Your task to perform on an android device: Set the phone to "Do not disturb". Image 0: 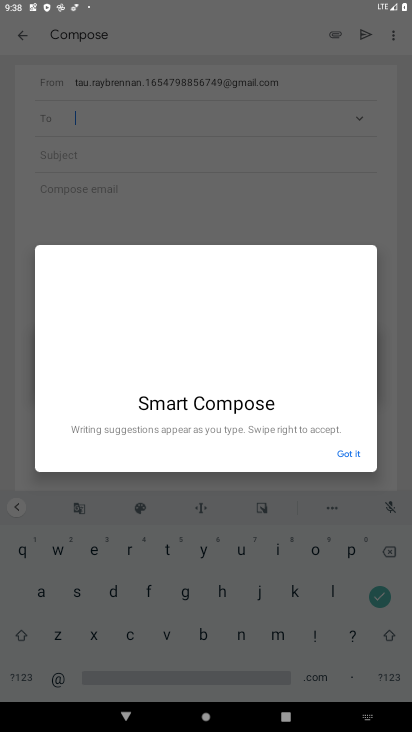
Step 0: press home button
Your task to perform on an android device: Set the phone to "Do not disturb". Image 1: 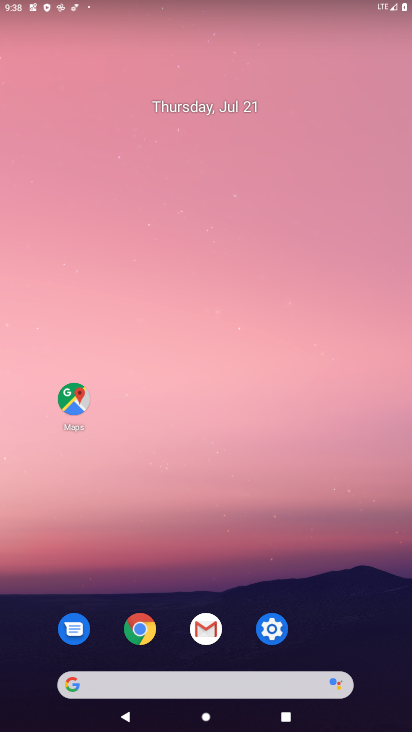
Step 1: click (280, 636)
Your task to perform on an android device: Set the phone to "Do not disturb". Image 2: 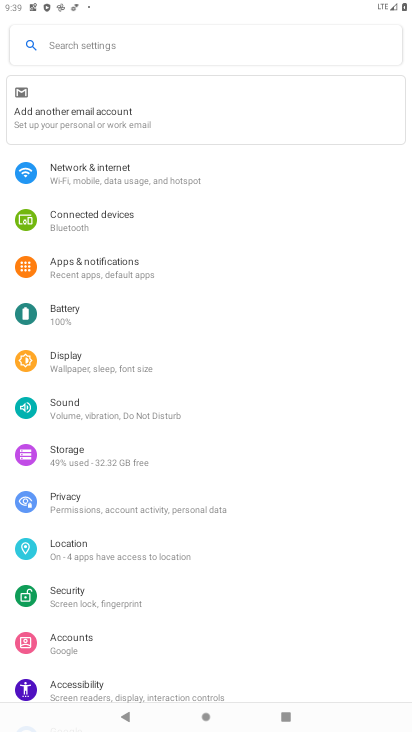
Step 2: click (101, 44)
Your task to perform on an android device: Set the phone to "Do not disturb". Image 3: 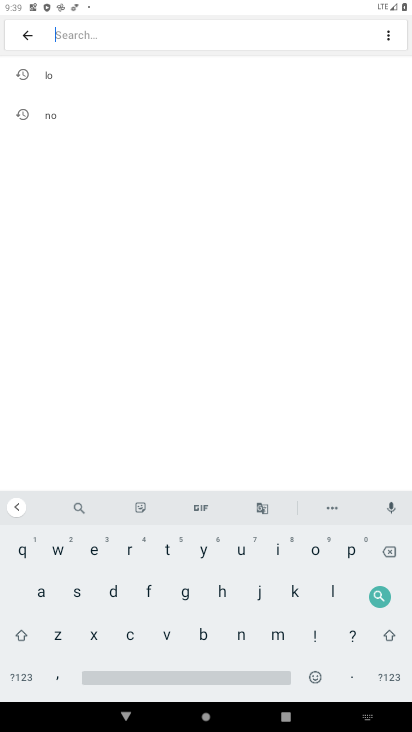
Step 3: click (109, 598)
Your task to perform on an android device: Set the phone to "Do not disturb". Image 4: 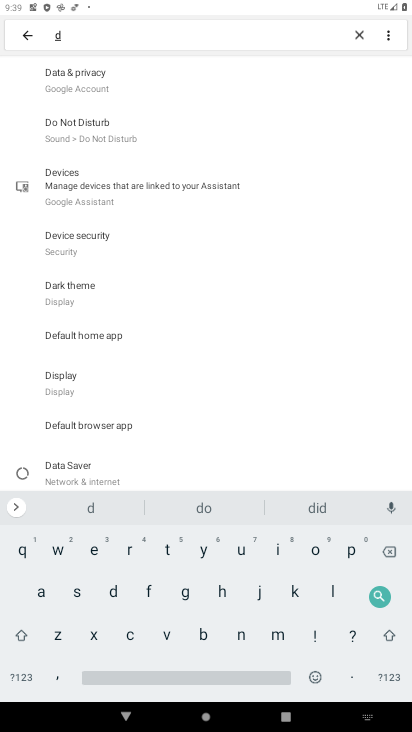
Step 4: click (242, 630)
Your task to perform on an android device: Set the phone to "Do not disturb". Image 5: 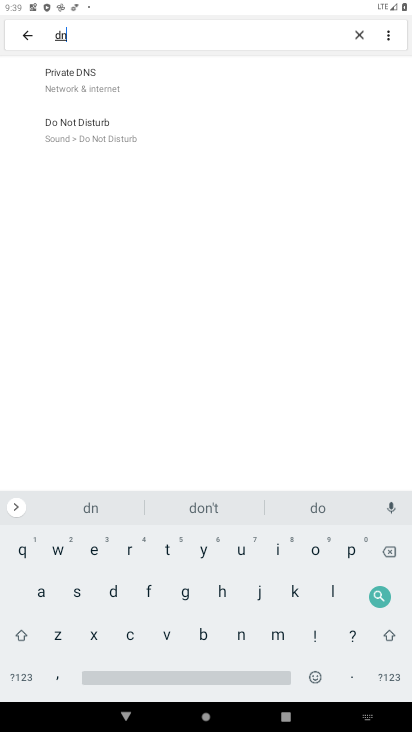
Step 5: click (122, 118)
Your task to perform on an android device: Set the phone to "Do not disturb". Image 6: 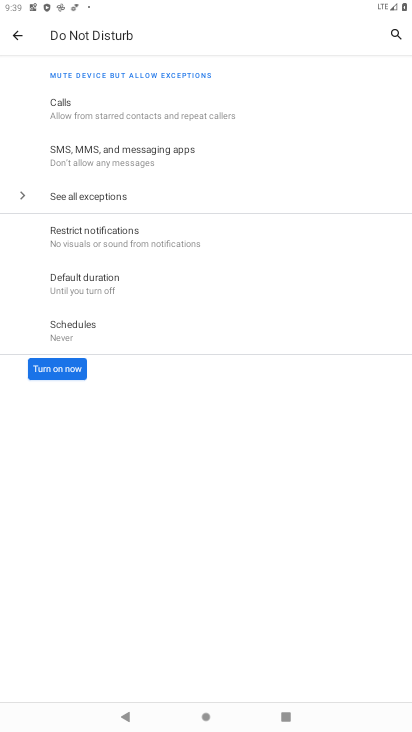
Step 6: click (53, 371)
Your task to perform on an android device: Set the phone to "Do not disturb". Image 7: 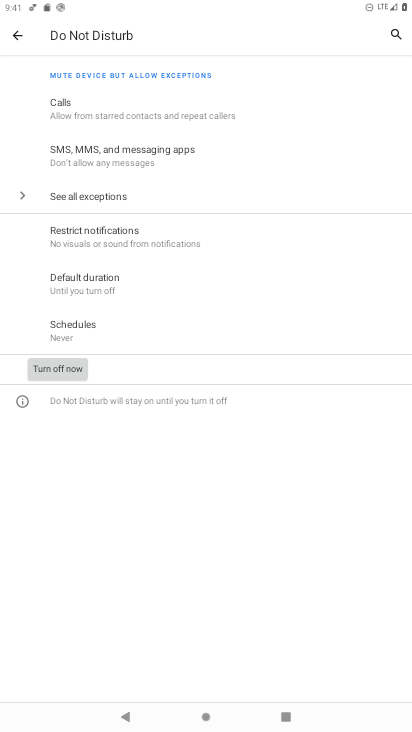
Step 7: task complete